Your task to perform on an android device: Search for pizza restaurants on Maps Image 0: 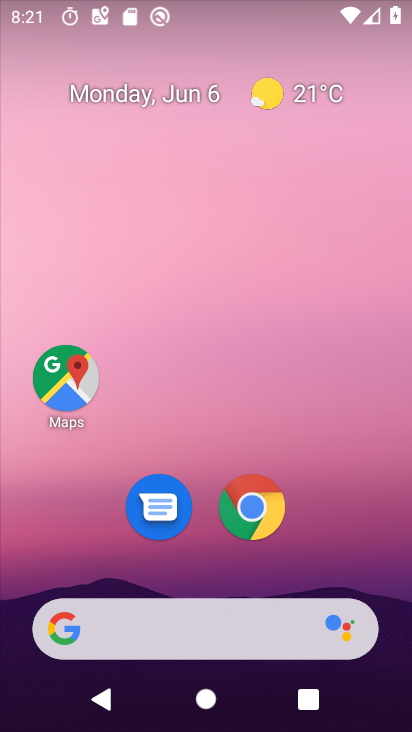
Step 0: press home button
Your task to perform on an android device: Search for pizza restaurants on Maps Image 1: 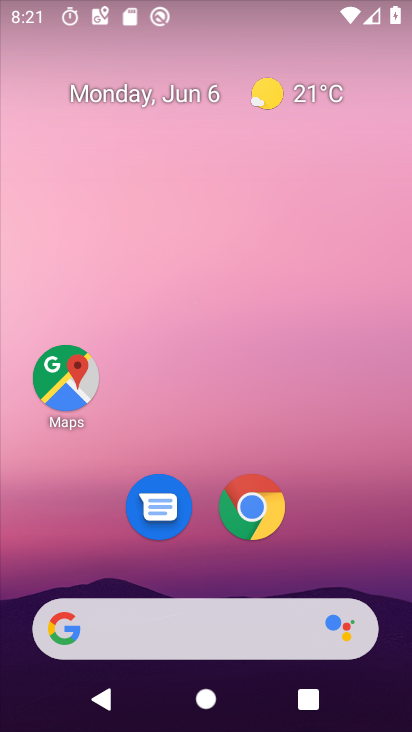
Step 1: click (244, 510)
Your task to perform on an android device: Search for pizza restaurants on Maps Image 2: 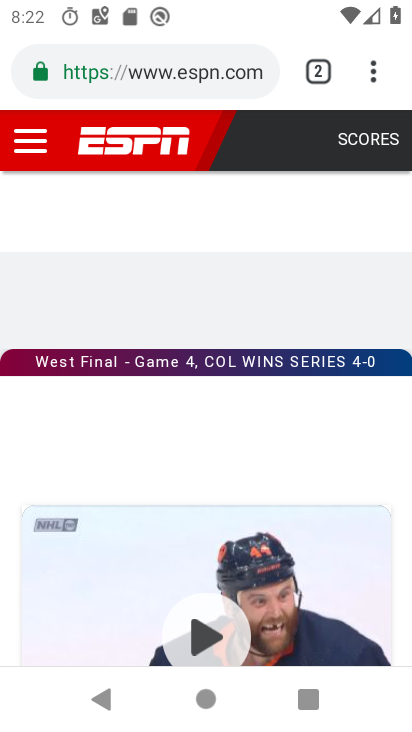
Step 2: press home button
Your task to perform on an android device: Search for pizza restaurants on Maps Image 3: 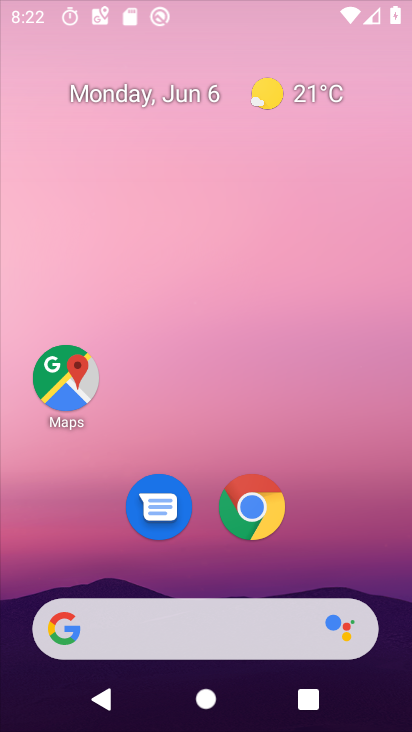
Step 3: click (87, 359)
Your task to perform on an android device: Search for pizza restaurants on Maps Image 4: 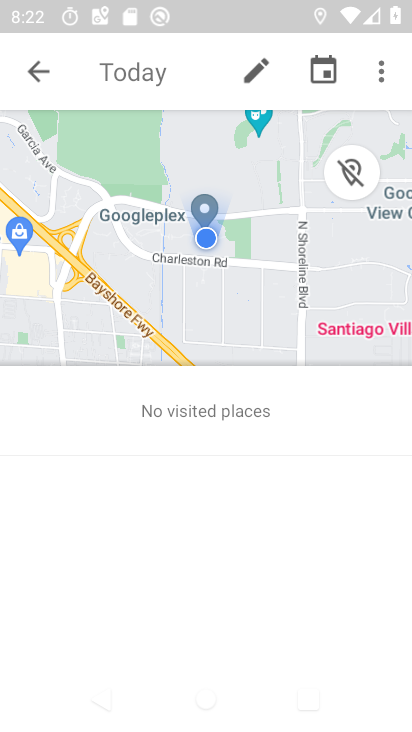
Step 4: click (41, 78)
Your task to perform on an android device: Search for pizza restaurants on Maps Image 5: 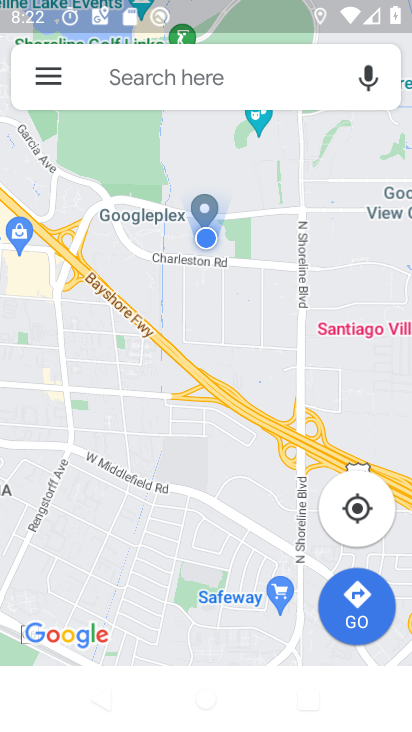
Step 5: click (165, 61)
Your task to perform on an android device: Search for pizza restaurants on Maps Image 6: 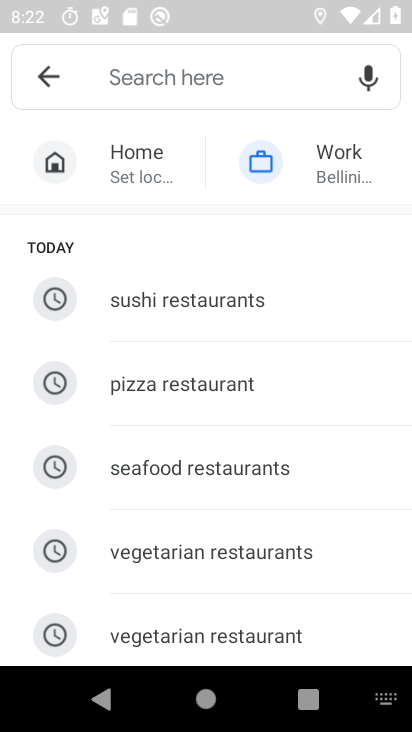
Step 6: type " pizza restaurants"
Your task to perform on an android device: Search for pizza restaurants on Maps Image 7: 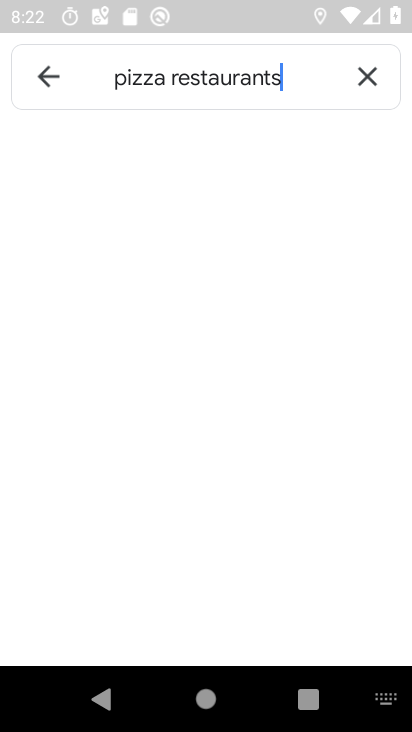
Step 7: type ""
Your task to perform on an android device: Search for pizza restaurants on Maps Image 8: 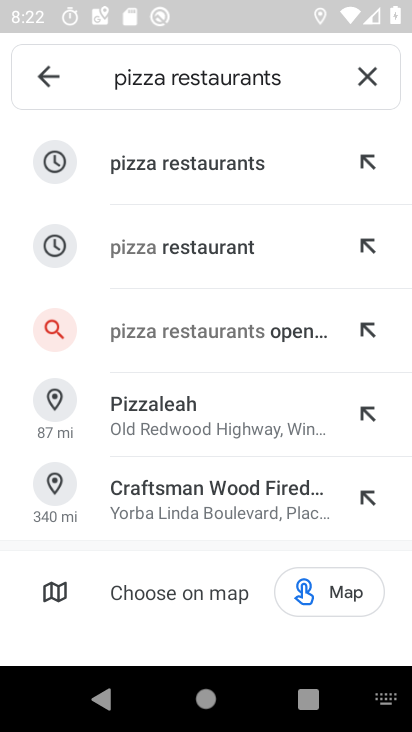
Step 8: click (101, 143)
Your task to perform on an android device: Search for pizza restaurants on Maps Image 9: 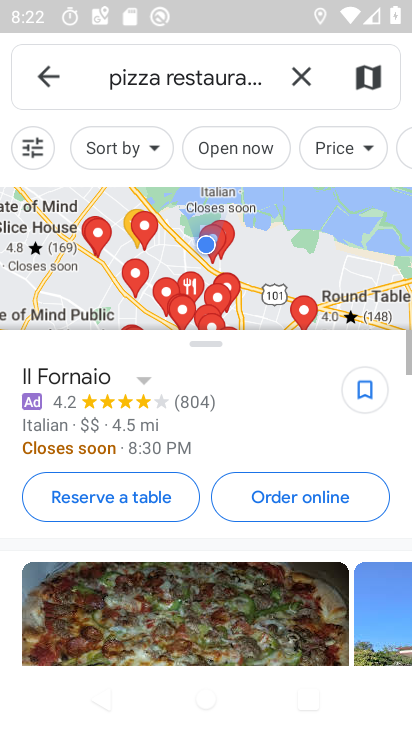
Step 9: task complete